Your task to perform on an android device: Open accessibility settings Image 0: 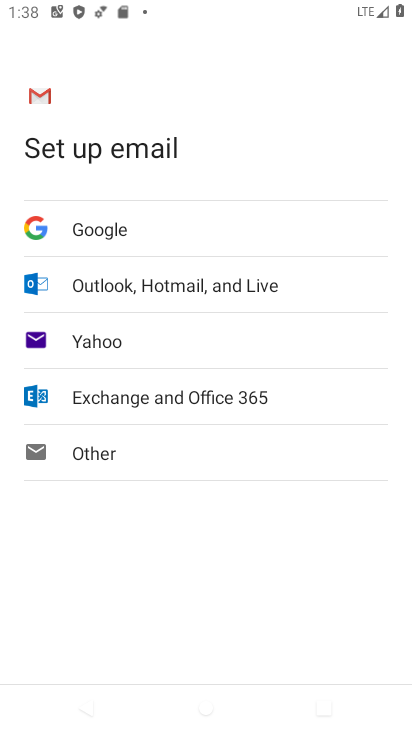
Step 0: press home button
Your task to perform on an android device: Open accessibility settings Image 1: 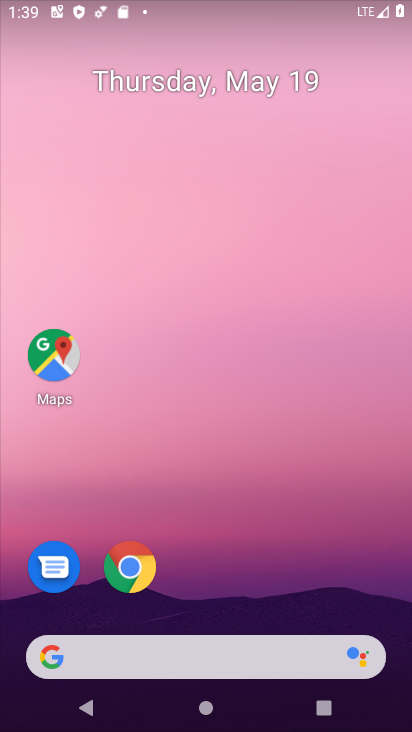
Step 1: drag from (5, 650) to (210, 166)
Your task to perform on an android device: Open accessibility settings Image 2: 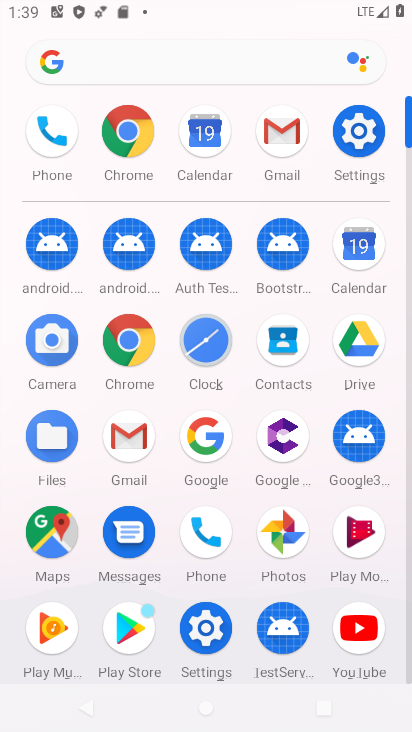
Step 2: click (353, 136)
Your task to perform on an android device: Open accessibility settings Image 3: 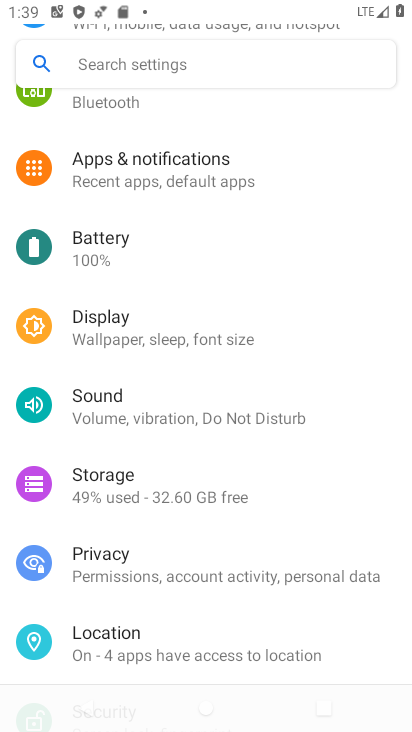
Step 3: drag from (39, 438) to (234, 128)
Your task to perform on an android device: Open accessibility settings Image 4: 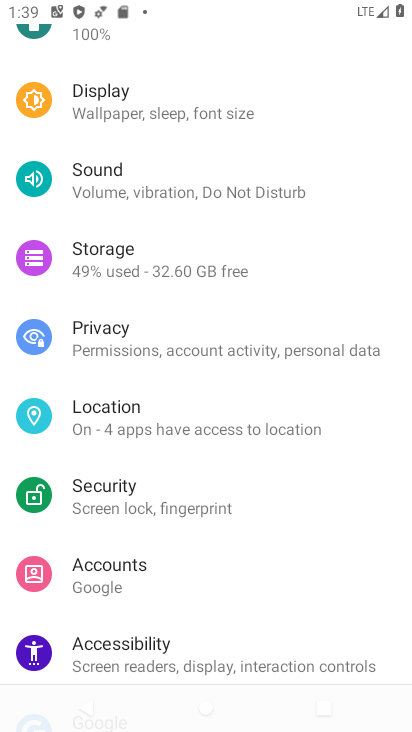
Step 4: click (144, 658)
Your task to perform on an android device: Open accessibility settings Image 5: 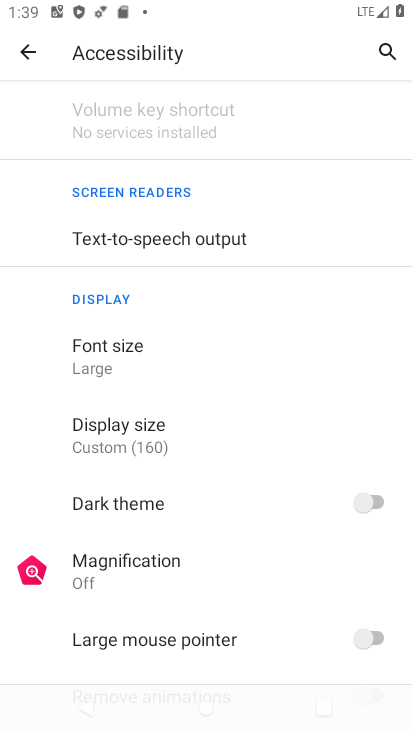
Step 5: task complete